Your task to perform on an android device: Open sound settings Image 0: 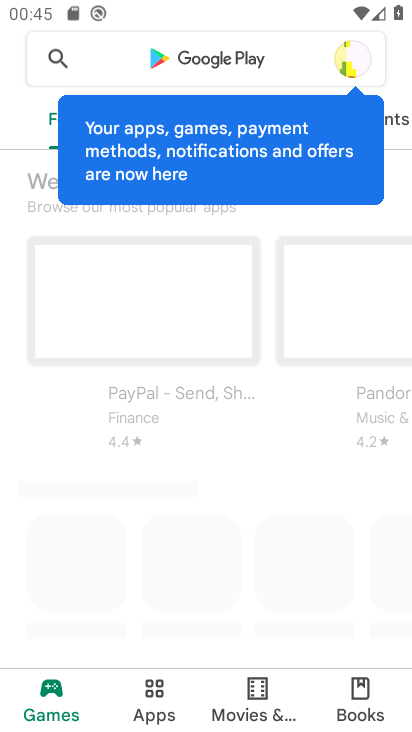
Step 0: press back button
Your task to perform on an android device: Open sound settings Image 1: 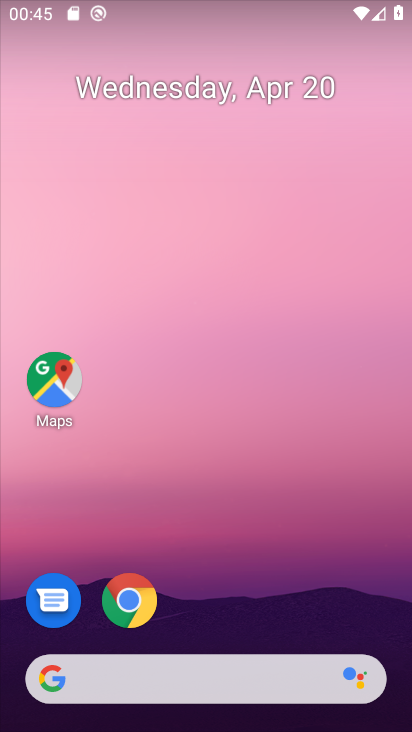
Step 1: drag from (331, 613) to (308, 1)
Your task to perform on an android device: Open sound settings Image 2: 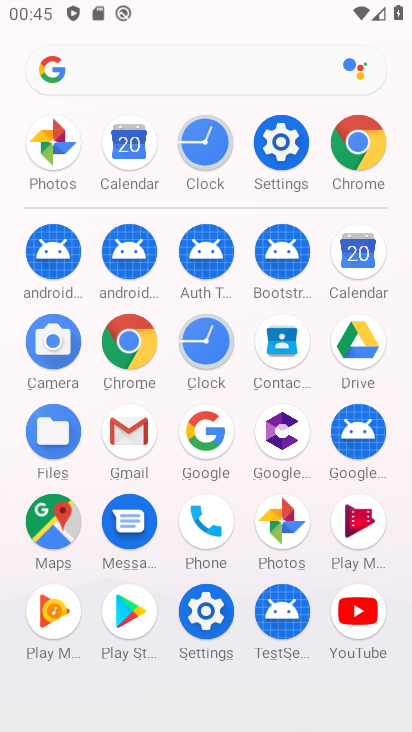
Step 2: click (204, 614)
Your task to perform on an android device: Open sound settings Image 3: 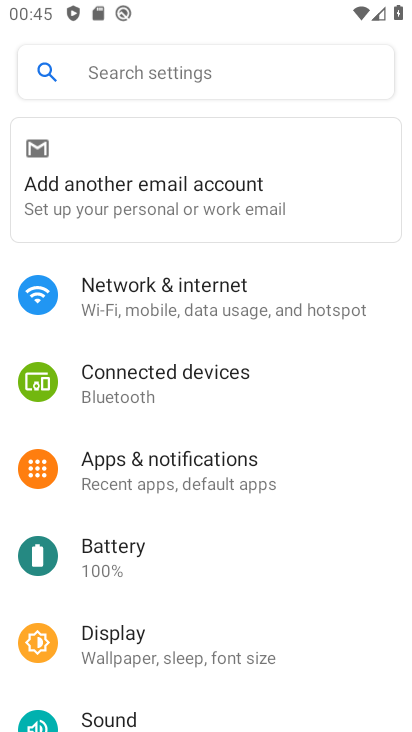
Step 3: click (157, 715)
Your task to perform on an android device: Open sound settings Image 4: 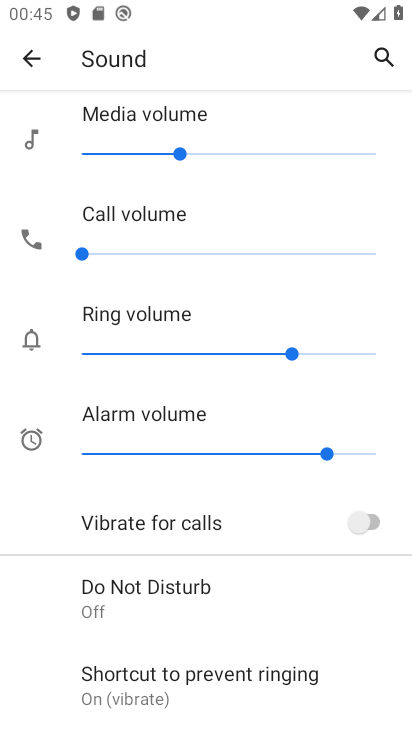
Step 4: drag from (224, 576) to (233, 276)
Your task to perform on an android device: Open sound settings Image 5: 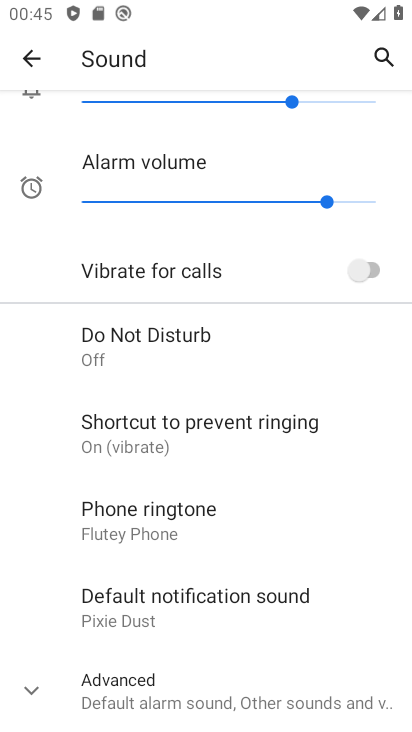
Step 5: click (38, 689)
Your task to perform on an android device: Open sound settings Image 6: 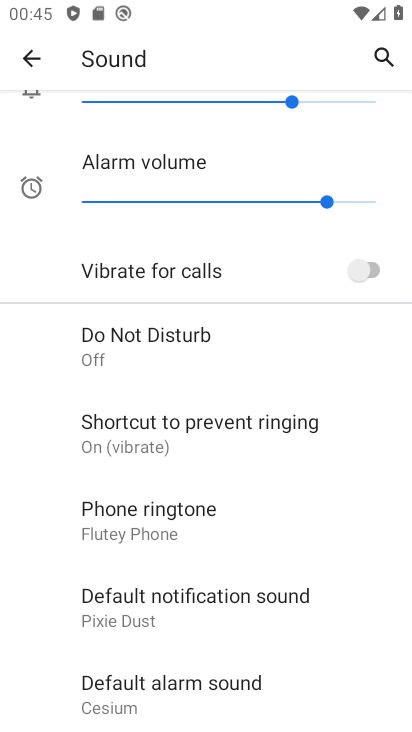
Step 6: task complete